Your task to perform on an android device: Open internet settings Image 0: 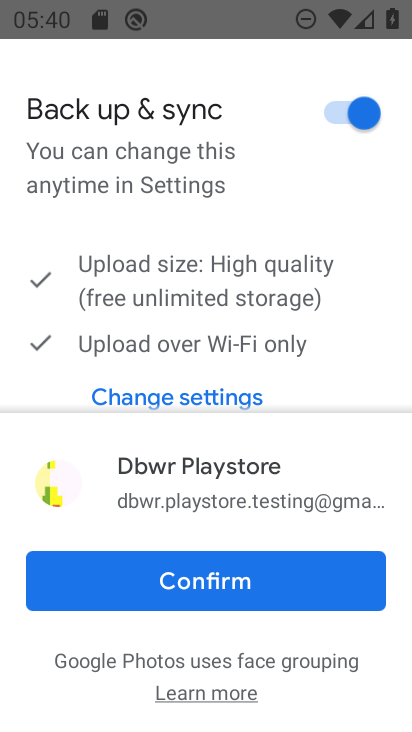
Step 0: press back button
Your task to perform on an android device: Open internet settings Image 1: 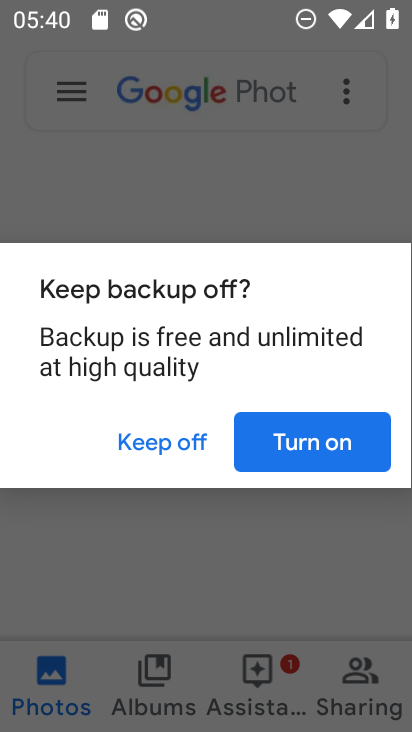
Step 1: press home button
Your task to perform on an android device: Open internet settings Image 2: 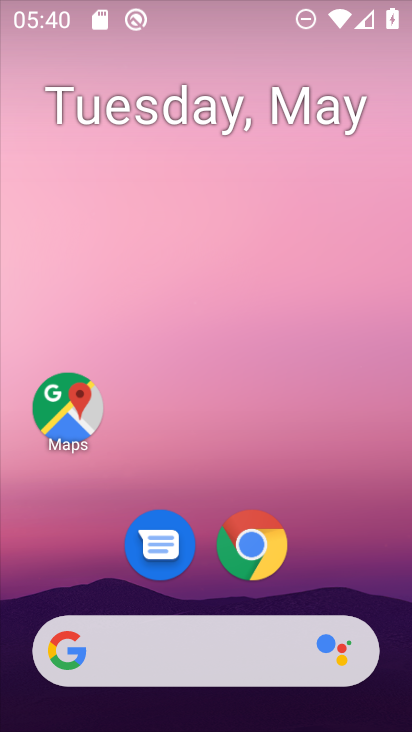
Step 2: drag from (334, 590) to (304, 46)
Your task to perform on an android device: Open internet settings Image 3: 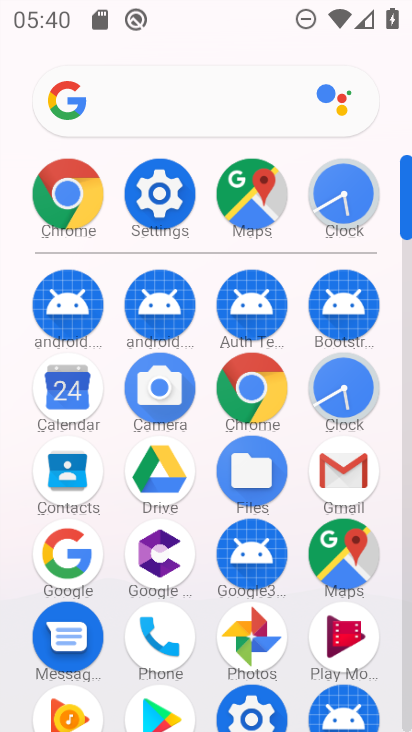
Step 3: drag from (32, 554) to (49, 321)
Your task to perform on an android device: Open internet settings Image 4: 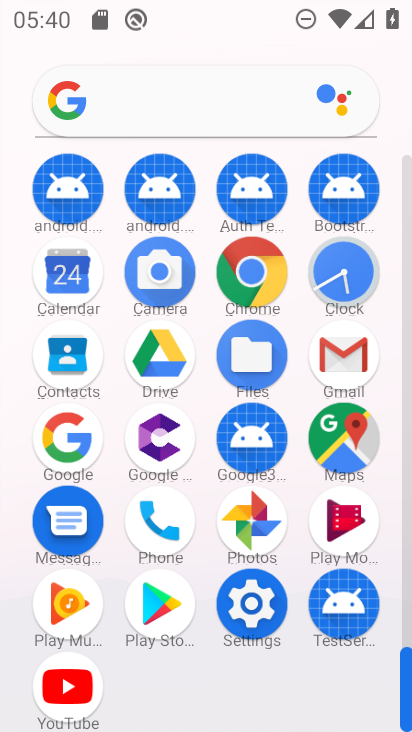
Step 4: click (254, 596)
Your task to perform on an android device: Open internet settings Image 5: 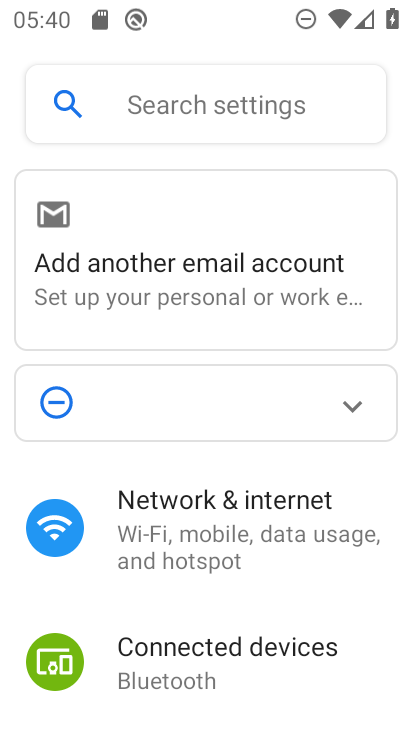
Step 5: drag from (302, 596) to (317, 185)
Your task to perform on an android device: Open internet settings Image 6: 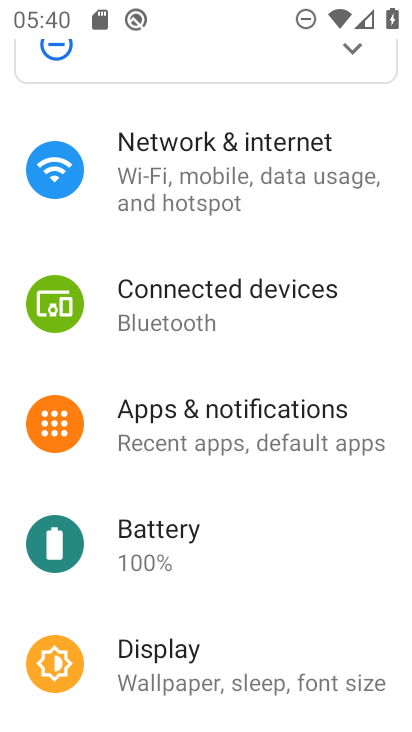
Step 6: drag from (280, 630) to (290, 288)
Your task to perform on an android device: Open internet settings Image 7: 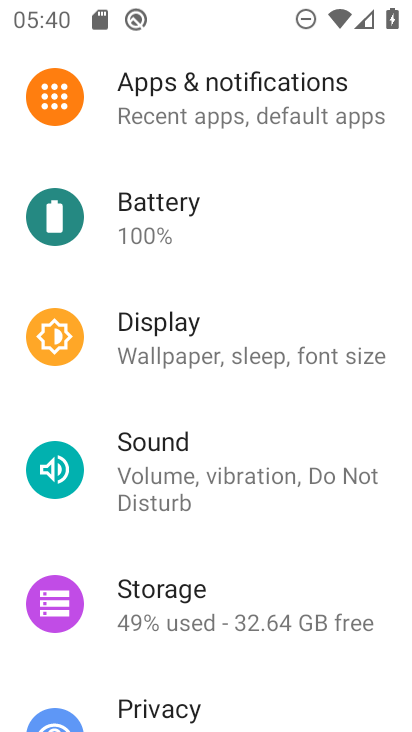
Step 7: drag from (297, 157) to (297, 631)
Your task to perform on an android device: Open internet settings Image 8: 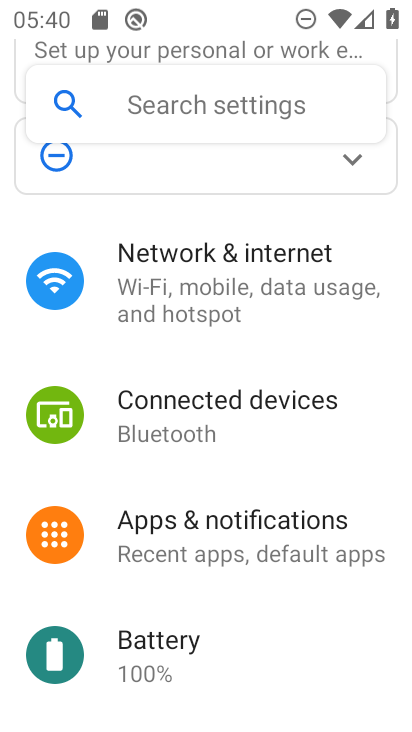
Step 8: click (270, 284)
Your task to perform on an android device: Open internet settings Image 9: 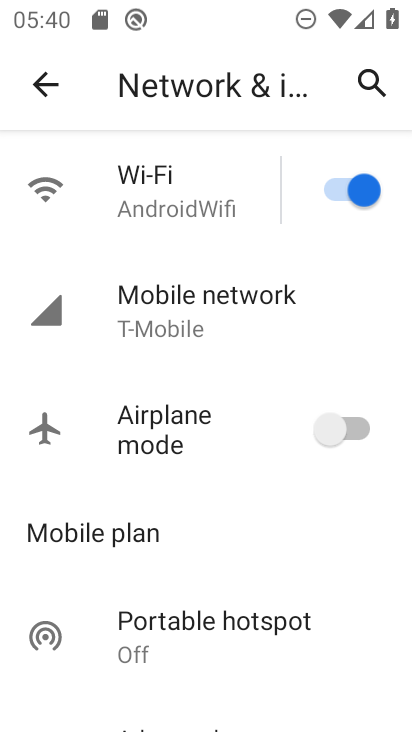
Step 9: drag from (205, 574) to (219, 172)
Your task to perform on an android device: Open internet settings Image 10: 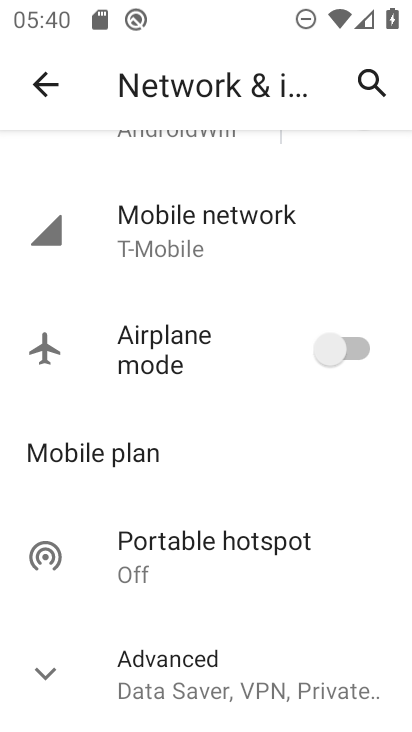
Step 10: click (68, 655)
Your task to perform on an android device: Open internet settings Image 11: 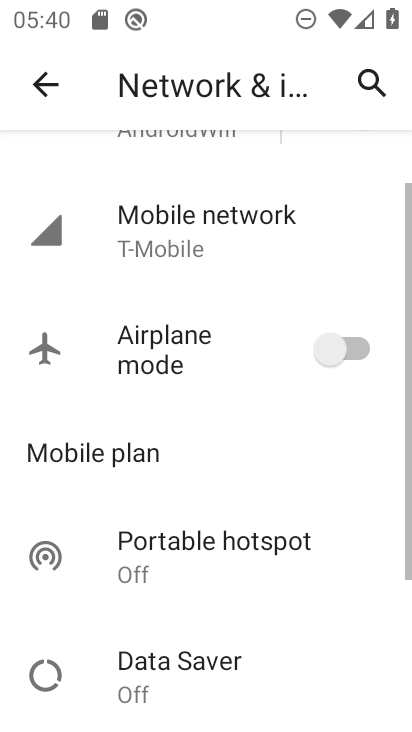
Step 11: task complete